Your task to perform on an android device: toggle notifications settings in the gmail app Image 0: 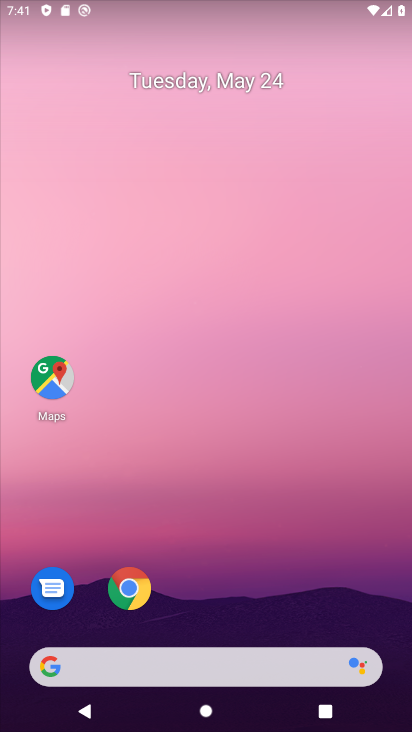
Step 0: drag from (237, 522) to (323, 215)
Your task to perform on an android device: toggle notifications settings in the gmail app Image 1: 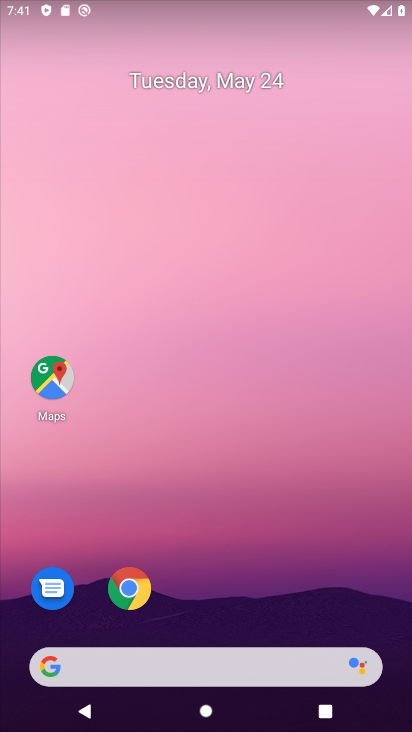
Step 1: drag from (172, 570) to (231, 221)
Your task to perform on an android device: toggle notifications settings in the gmail app Image 2: 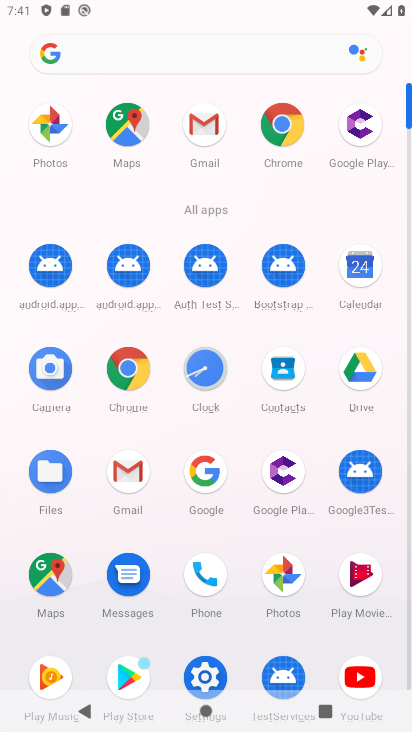
Step 2: click (121, 462)
Your task to perform on an android device: toggle notifications settings in the gmail app Image 3: 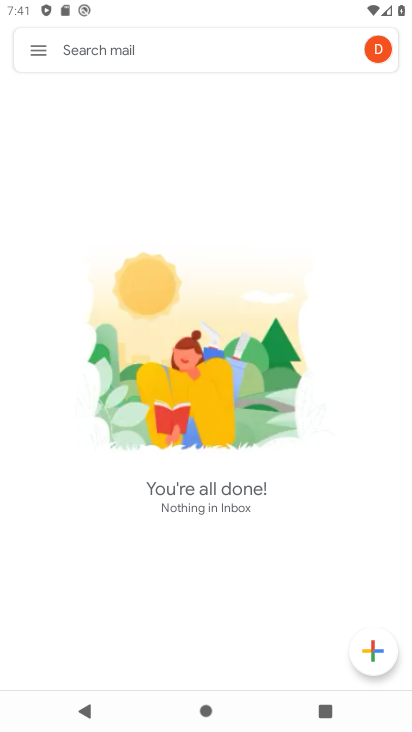
Step 3: click (45, 50)
Your task to perform on an android device: toggle notifications settings in the gmail app Image 4: 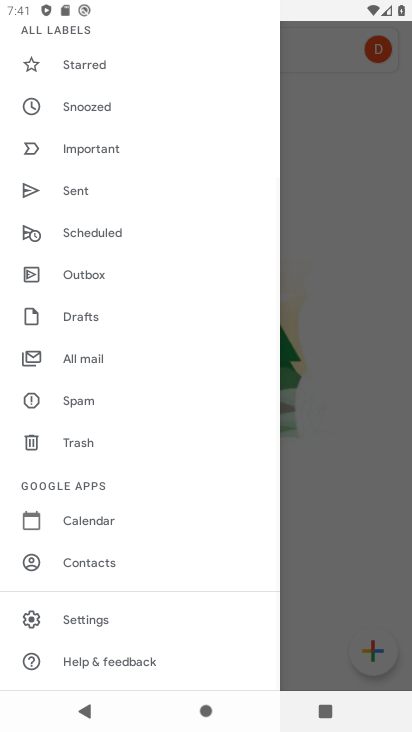
Step 4: click (121, 621)
Your task to perform on an android device: toggle notifications settings in the gmail app Image 5: 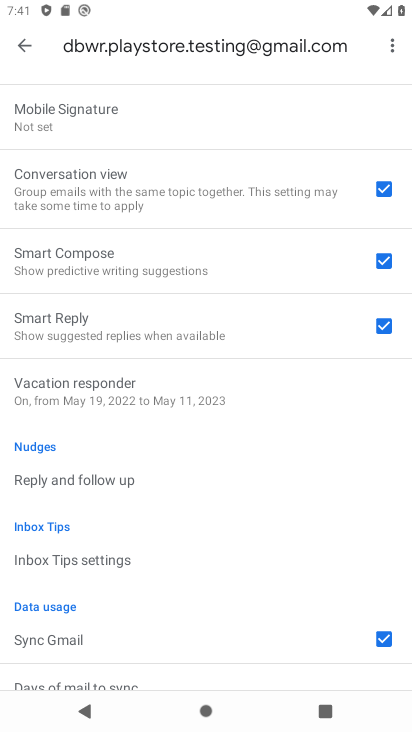
Step 5: drag from (273, 135) to (133, 712)
Your task to perform on an android device: toggle notifications settings in the gmail app Image 6: 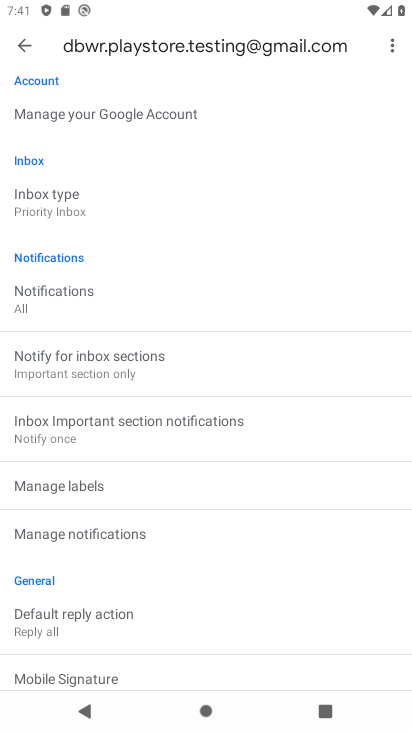
Step 6: click (128, 532)
Your task to perform on an android device: toggle notifications settings in the gmail app Image 7: 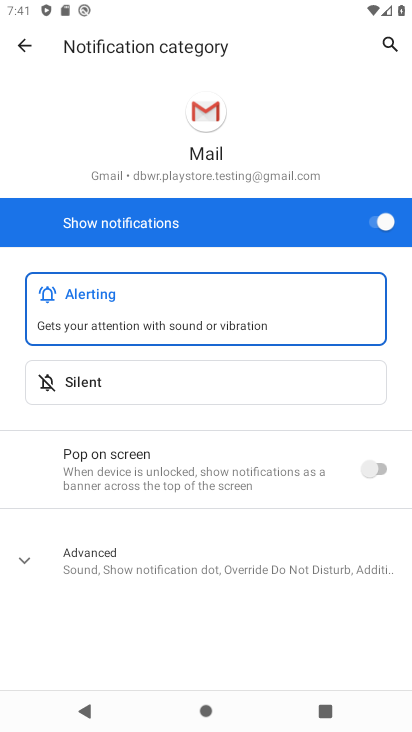
Step 7: click (381, 228)
Your task to perform on an android device: toggle notifications settings in the gmail app Image 8: 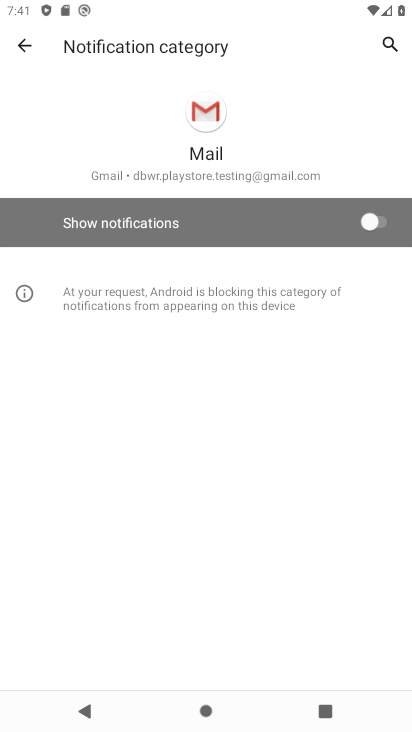
Step 8: task complete